Your task to perform on an android device: What's the weather going to be tomorrow? Image 0: 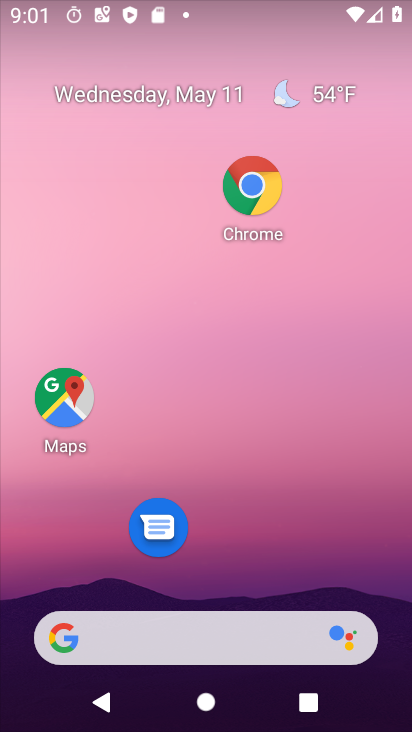
Step 0: drag from (280, 532) to (244, 121)
Your task to perform on an android device: What's the weather going to be tomorrow? Image 1: 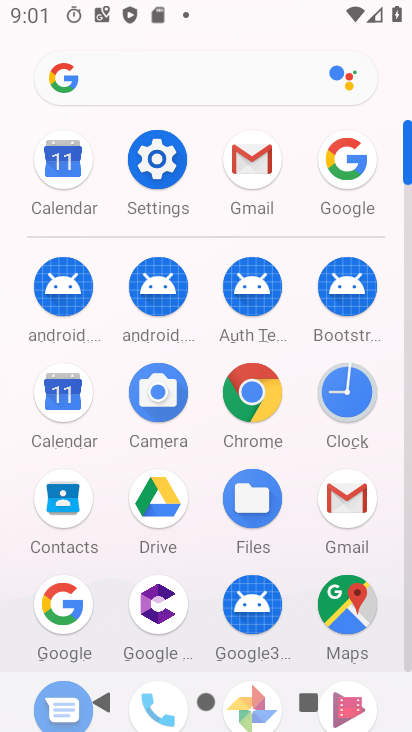
Step 1: click (59, 605)
Your task to perform on an android device: What's the weather going to be tomorrow? Image 2: 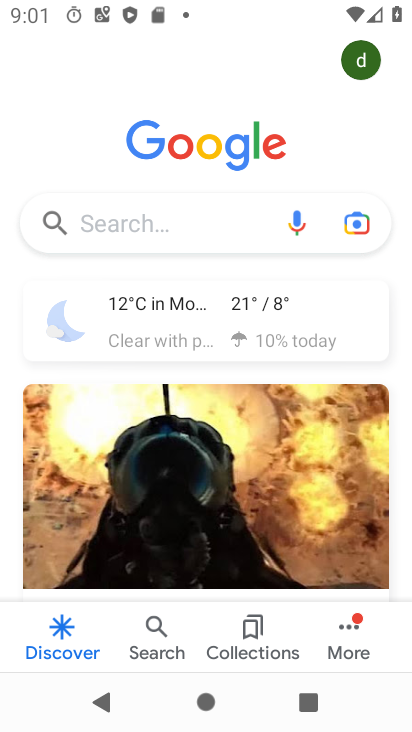
Step 2: click (161, 223)
Your task to perform on an android device: What's the weather going to be tomorrow? Image 3: 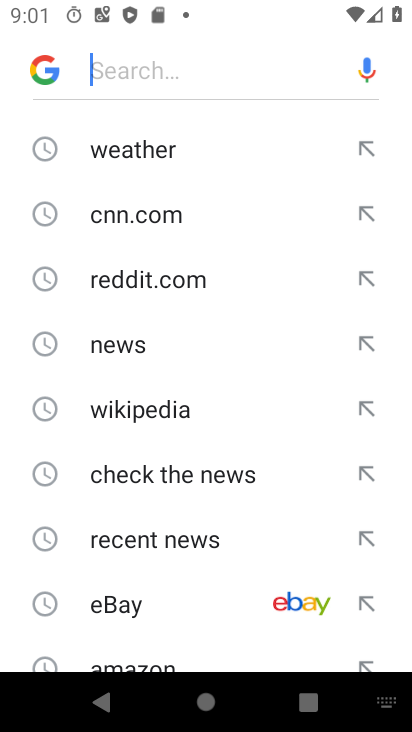
Step 3: type "weather going to be tomorrow"
Your task to perform on an android device: What's the weather going to be tomorrow? Image 4: 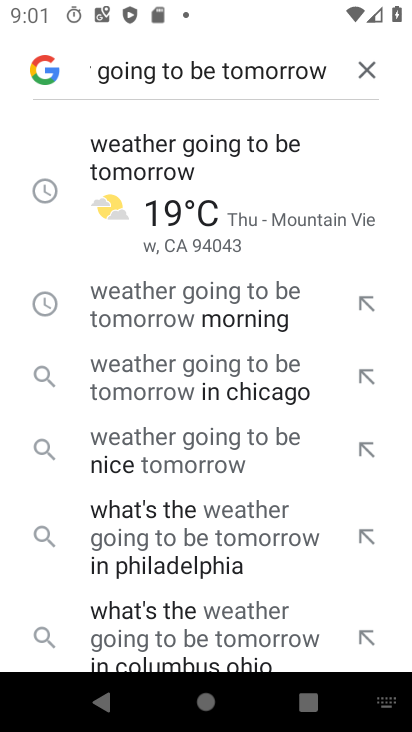
Step 4: click (181, 165)
Your task to perform on an android device: What's the weather going to be tomorrow? Image 5: 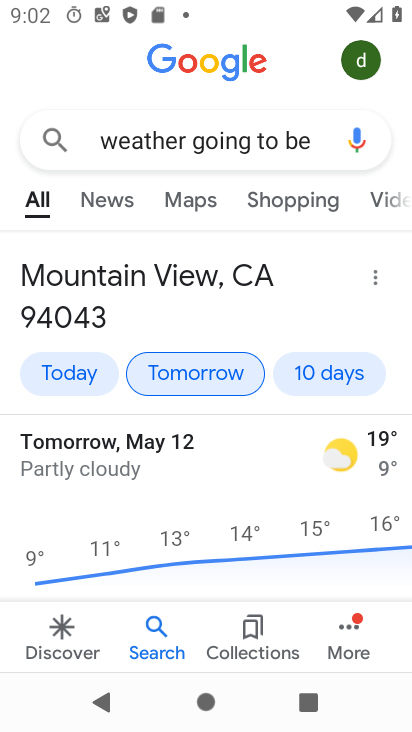
Step 5: task complete